Your task to perform on an android device: Find coffee shops on Maps Image 0: 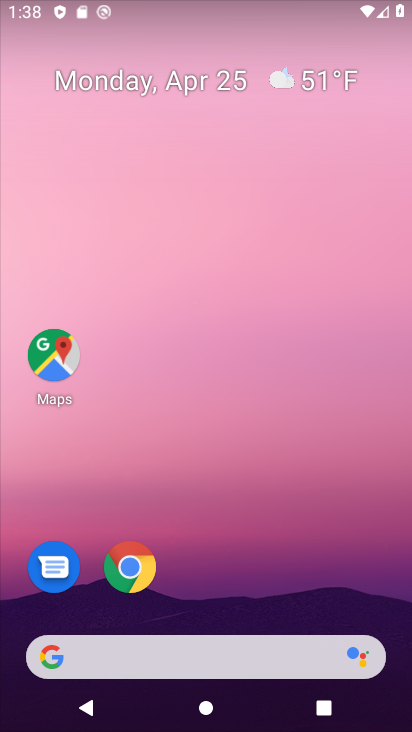
Step 0: click (52, 360)
Your task to perform on an android device: Find coffee shops on Maps Image 1: 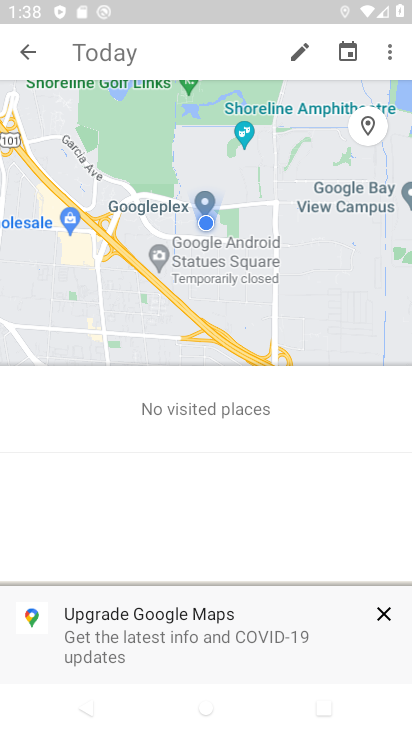
Step 1: click (39, 50)
Your task to perform on an android device: Find coffee shops on Maps Image 2: 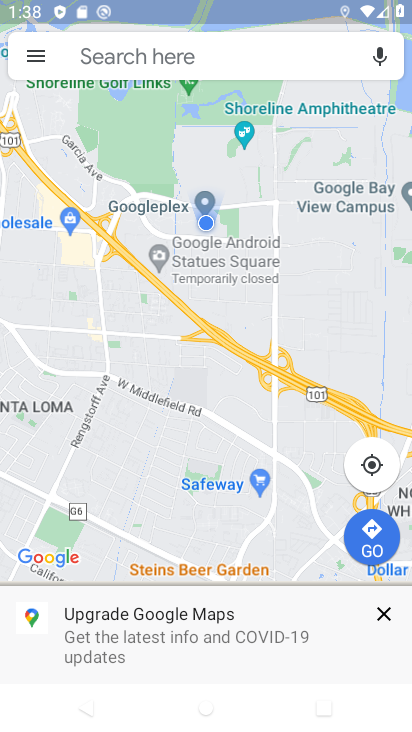
Step 2: click (199, 59)
Your task to perform on an android device: Find coffee shops on Maps Image 3: 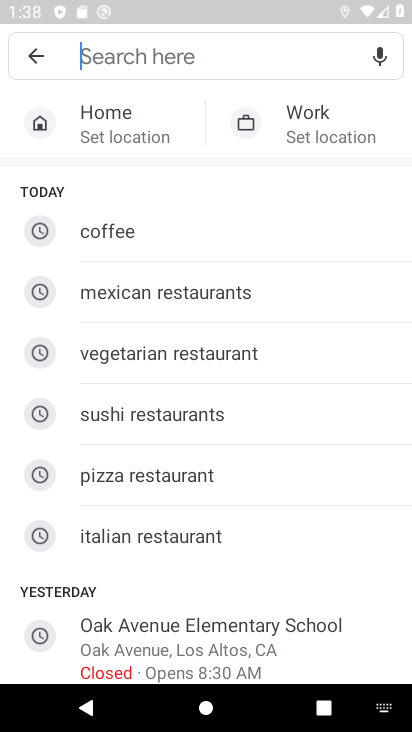
Step 3: click (168, 229)
Your task to perform on an android device: Find coffee shops on Maps Image 4: 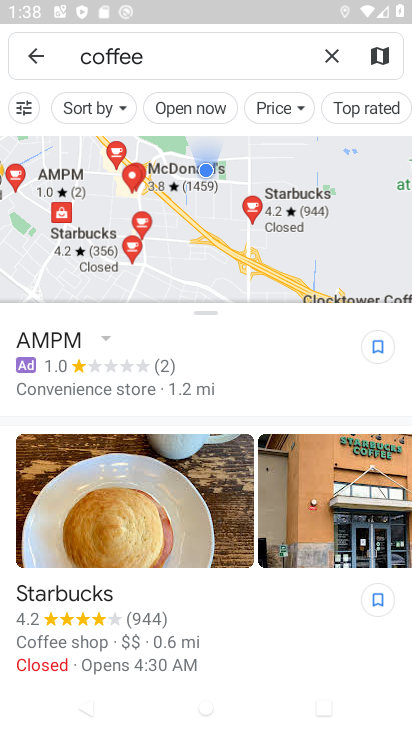
Step 4: task complete